Your task to perform on an android device: Check the weather Image 0: 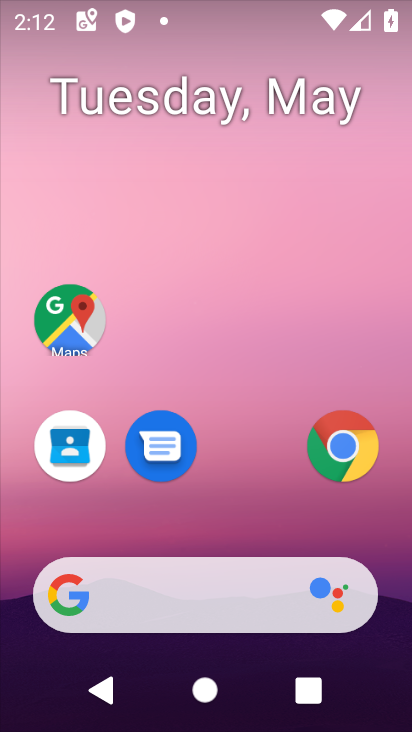
Step 0: drag from (214, 551) to (144, 11)
Your task to perform on an android device: Check the weather Image 1: 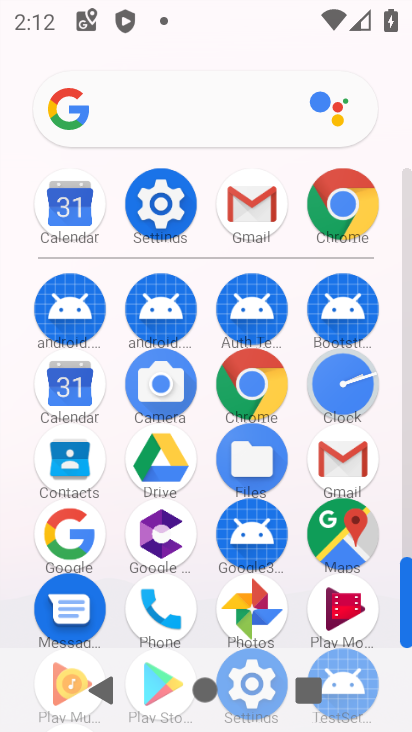
Step 1: click (89, 552)
Your task to perform on an android device: Check the weather Image 2: 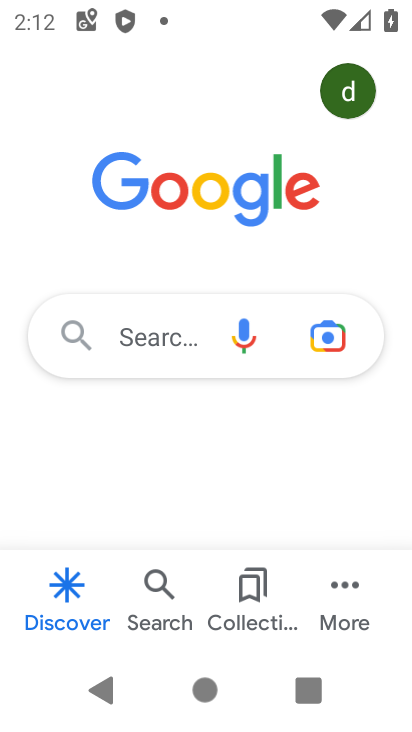
Step 2: click (154, 357)
Your task to perform on an android device: Check the weather Image 3: 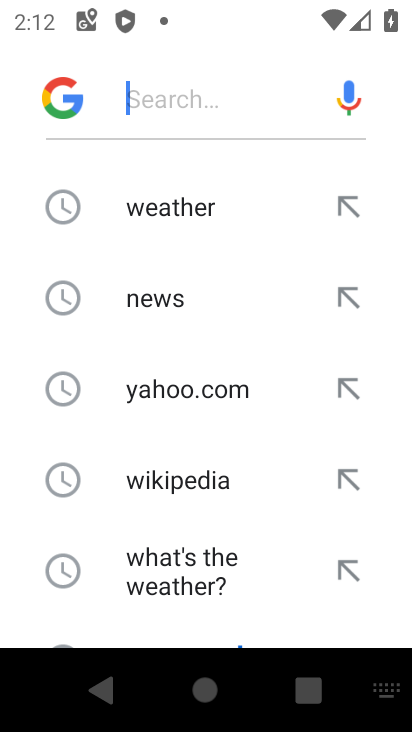
Step 3: click (129, 216)
Your task to perform on an android device: Check the weather Image 4: 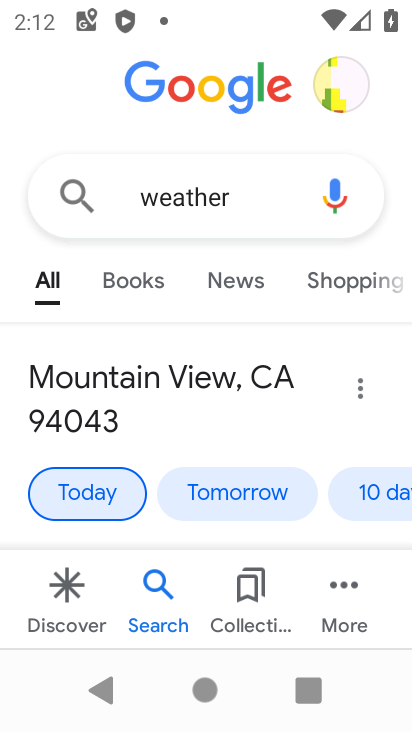
Step 4: task complete